Your task to perform on an android device: search for starred emails in the gmail app Image 0: 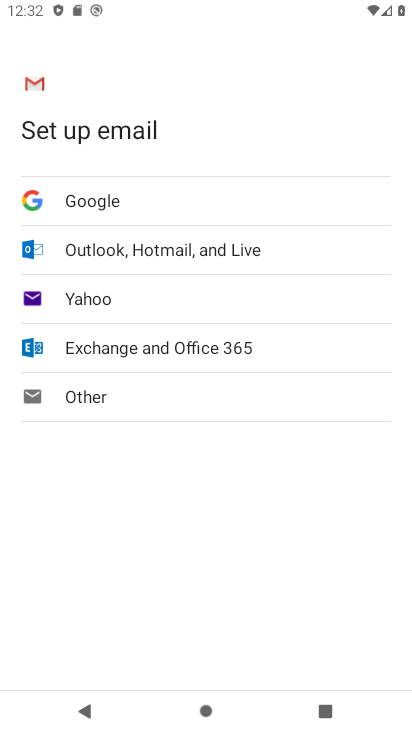
Step 0: press home button
Your task to perform on an android device: search for starred emails in the gmail app Image 1: 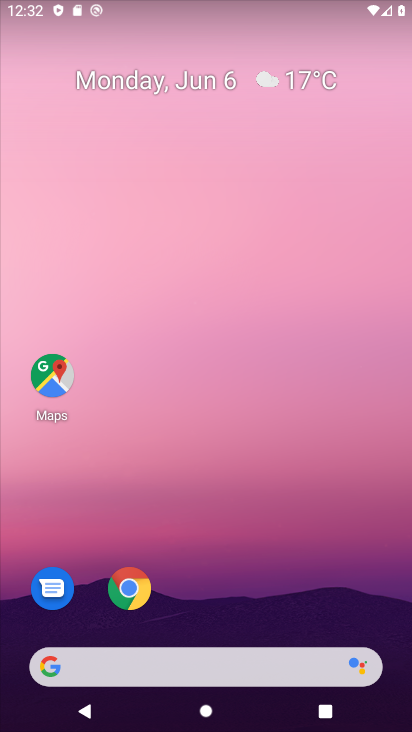
Step 1: drag from (219, 527) to (223, 51)
Your task to perform on an android device: search for starred emails in the gmail app Image 2: 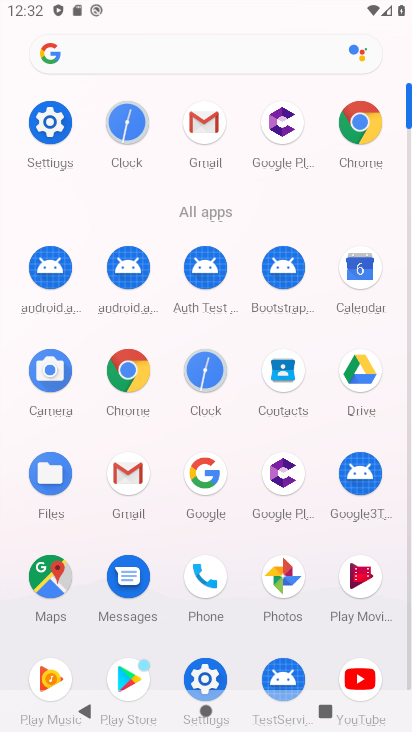
Step 2: click (205, 114)
Your task to perform on an android device: search for starred emails in the gmail app Image 3: 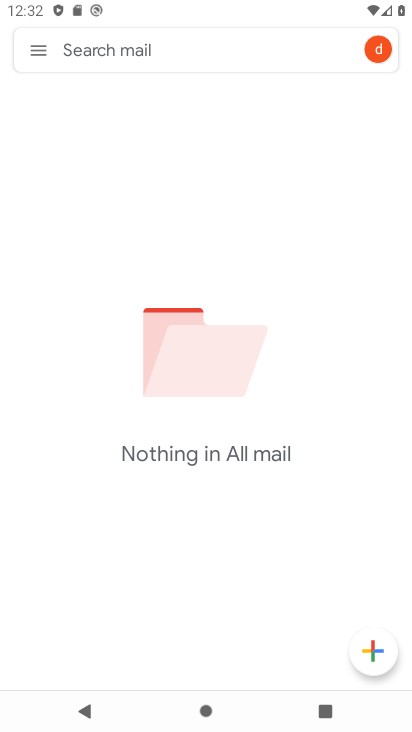
Step 3: click (43, 50)
Your task to perform on an android device: search for starred emails in the gmail app Image 4: 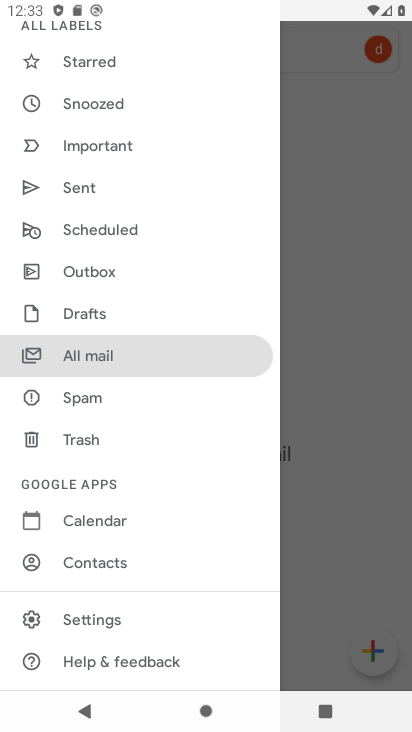
Step 4: click (107, 61)
Your task to perform on an android device: search for starred emails in the gmail app Image 5: 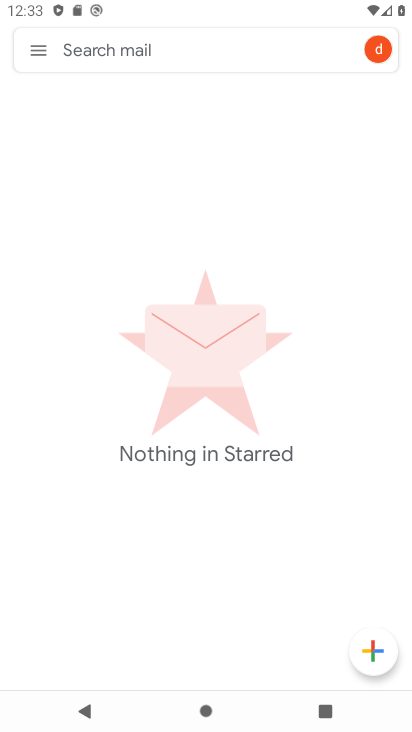
Step 5: task complete